Your task to perform on an android device: Go to sound settings Image 0: 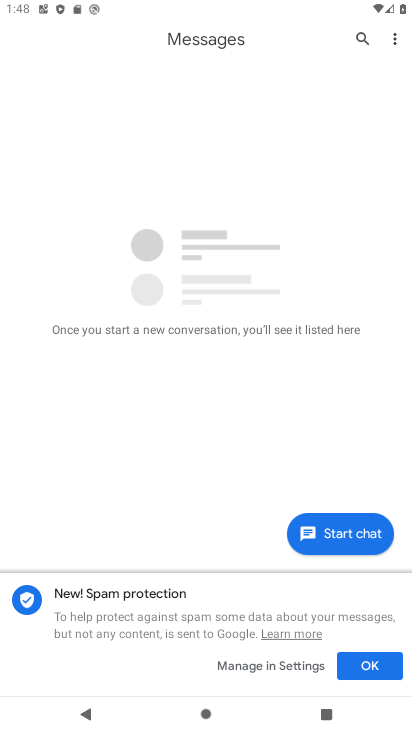
Step 0: press home button
Your task to perform on an android device: Go to sound settings Image 1: 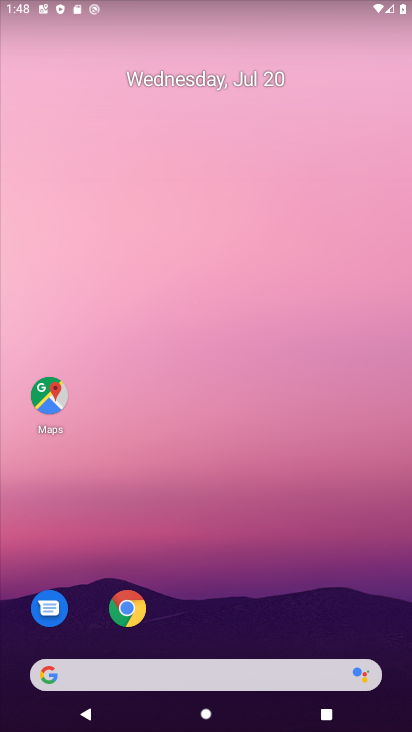
Step 1: drag from (228, 653) to (222, 217)
Your task to perform on an android device: Go to sound settings Image 2: 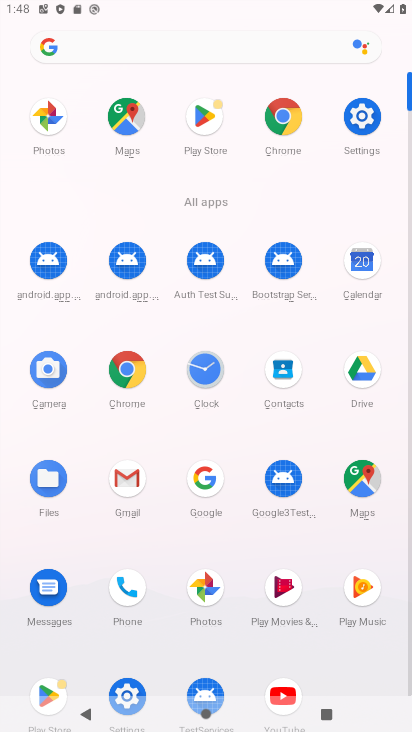
Step 2: click (352, 128)
Your task to perform on an android device: Go to sound settings Image 3: 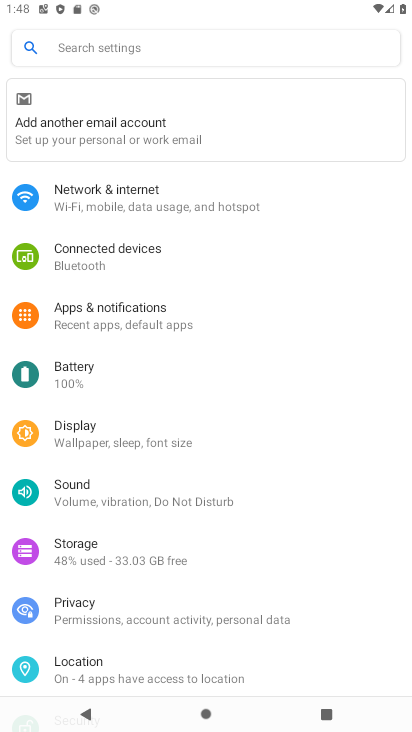
Step 3: click (95, 497)
Your task to perform on an android device: Go to sound settings Image 4: 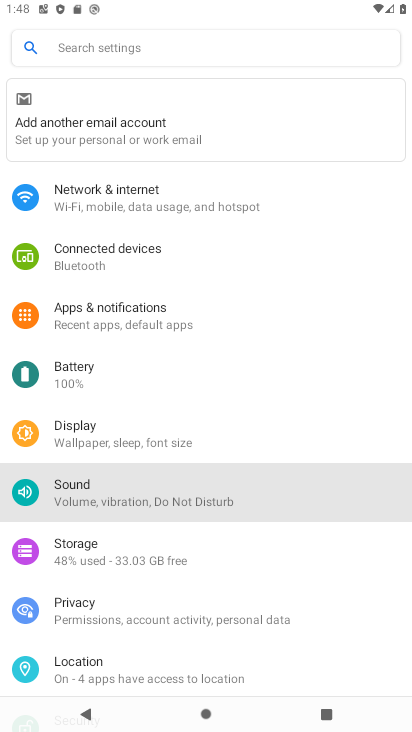
Step 4: task complete